Your task to perform on an android device: set an alarm Image 0: 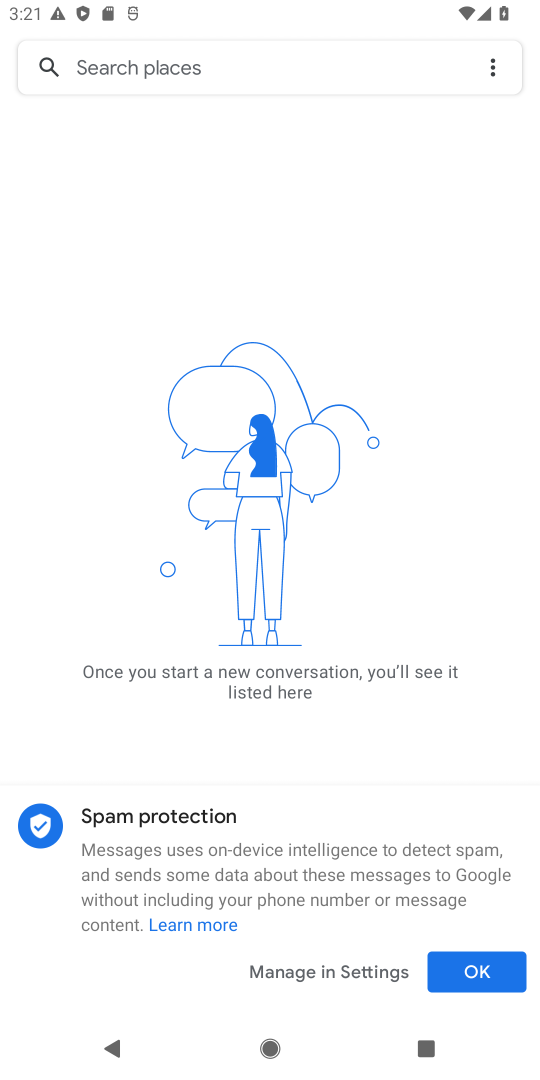
Step 0: press home button
Your task to perform on an android device: set an alarm Image 1: 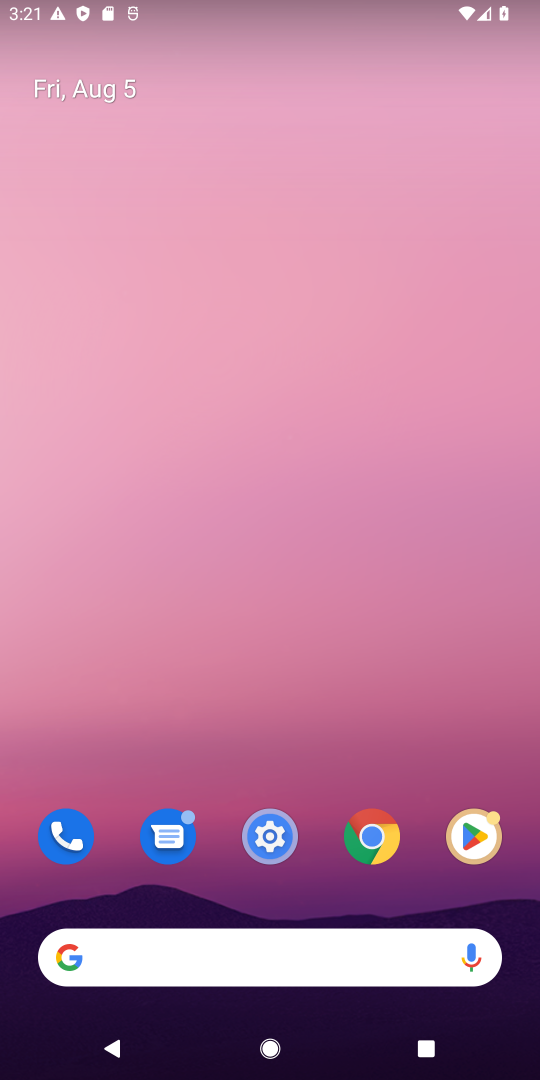
Step 1: drag from (261, 889) to (276, 5)
Your task to perform on an android device: set an alarm Image 2: 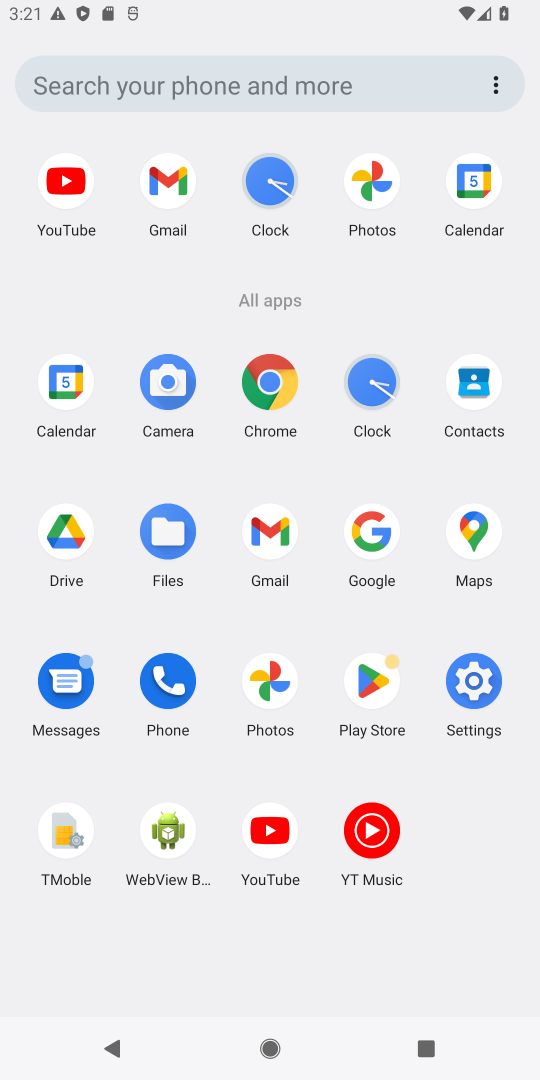
Step 2: click (386, 394)
Your task to perform on an android device: set an alarm Image 3: 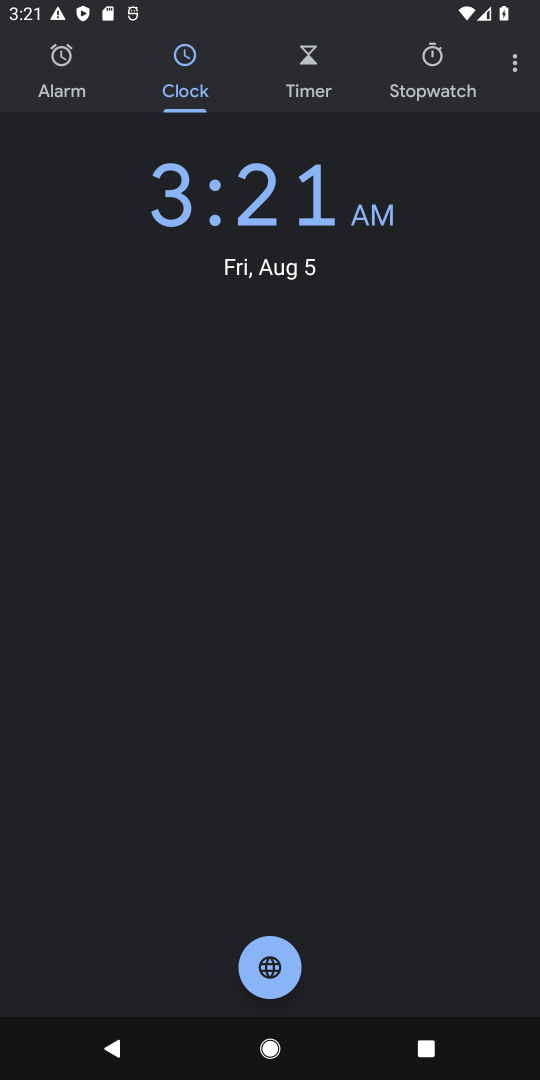
Step 3: click (50, 62)
Your task to perform on an android device: set an alarm Image 4: 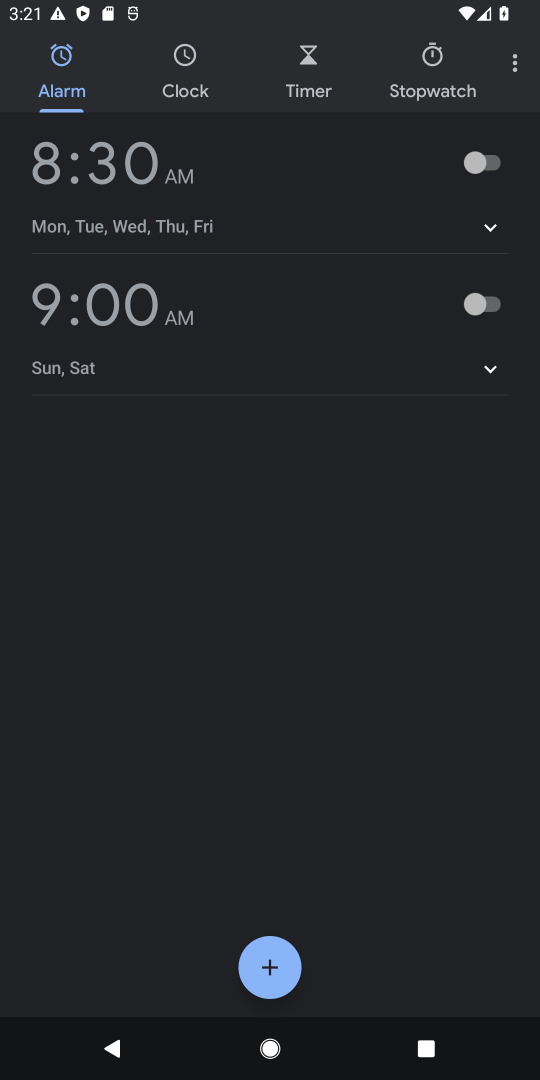
Step 4: click (502, 163)
Your task to perform on an android device: set an alarm Image 5: 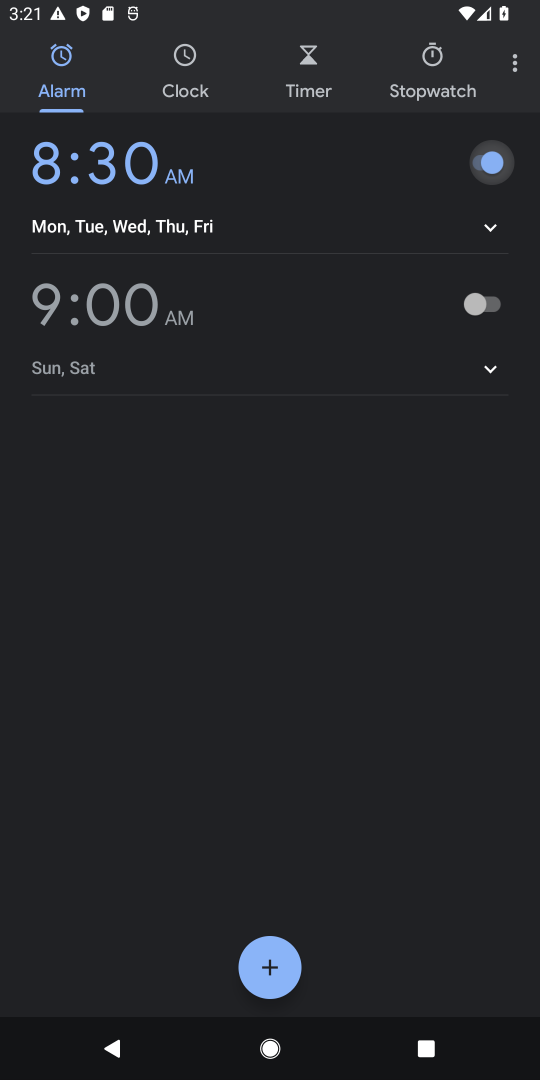
Step 5: click (489, 228)
Your task to perform on an android device: set an alarm Image 6: 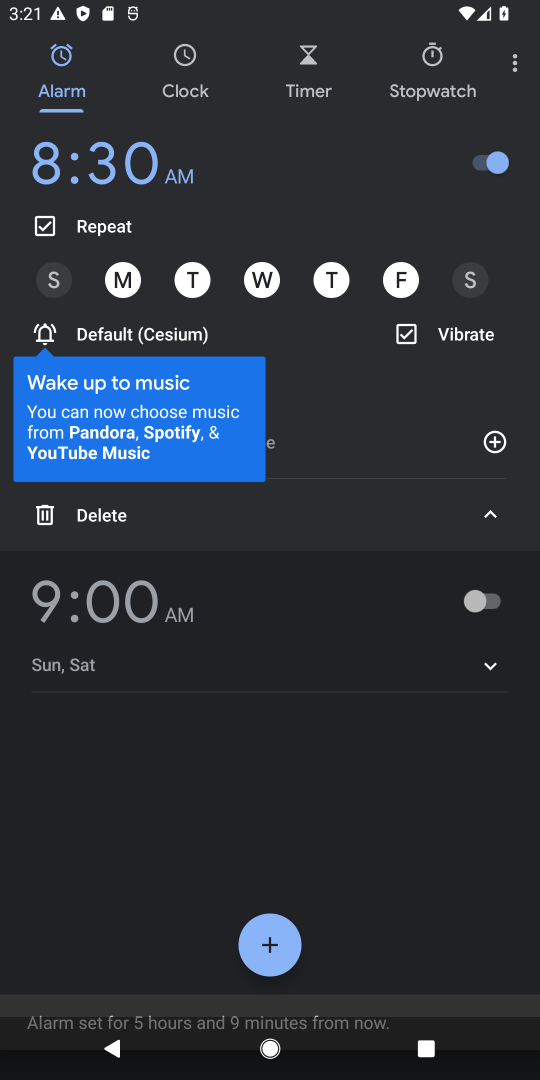
Step 6: click (192, 291)
Your task to perform on an android device: set an alarm Image 7: 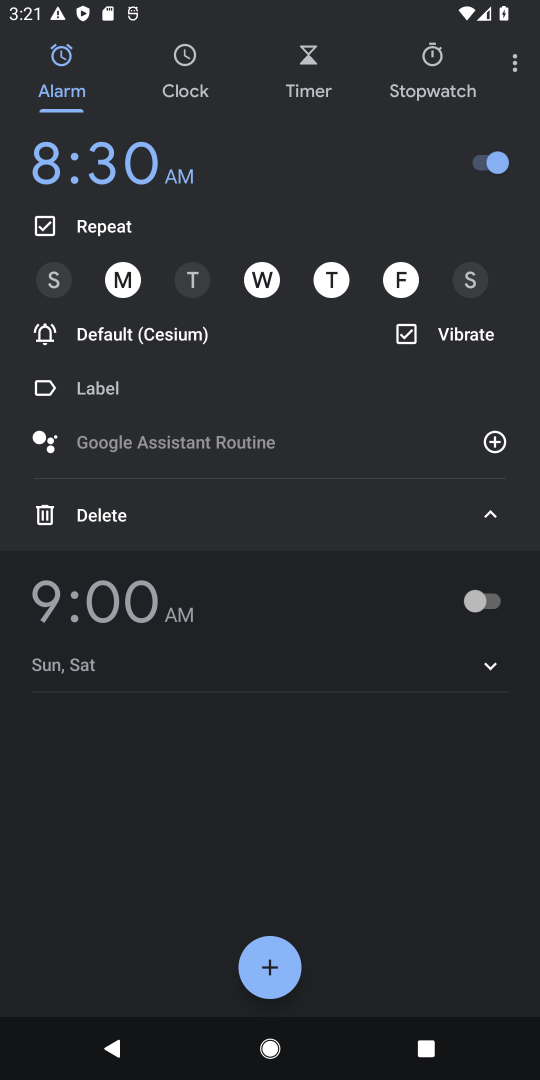
Step 7: click (332, 277)
Your task to perform on an android device: set an alarm Image 8: 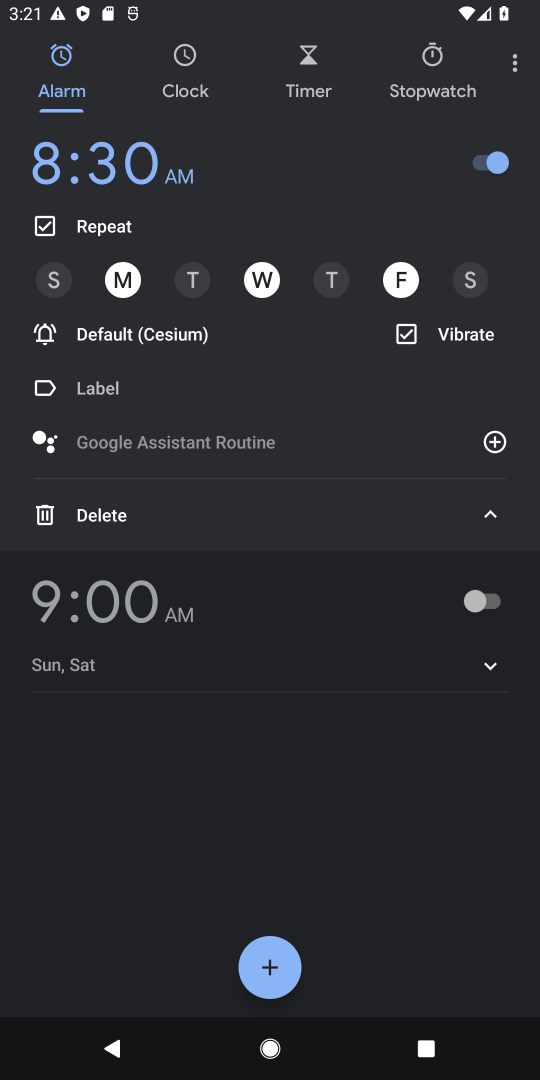
Step 8: task complete